Your task to perform on an android device: read, delete, or share a saved page in the chrome app Image 0: 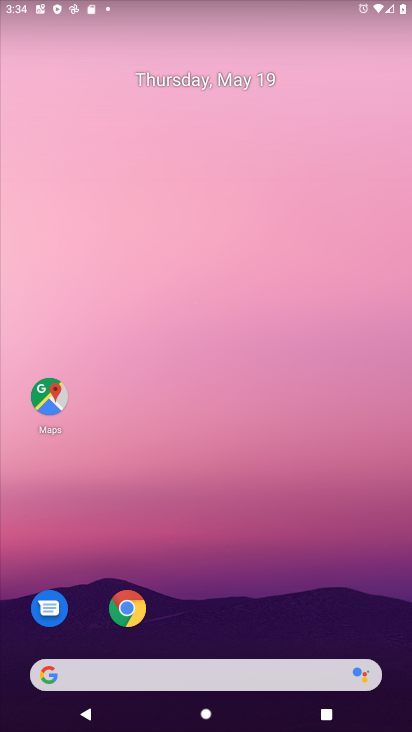
Step 0: click (150, 623)
Your task to perform on an android device: read, delete, or share a saved page in the chrome app Image 1: 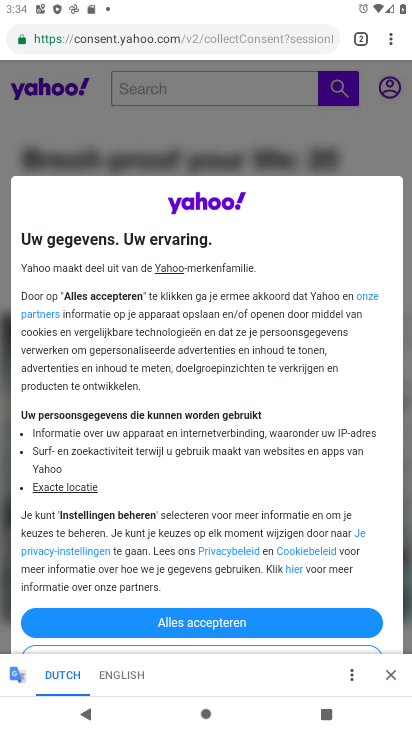
Step 1: click (387, 45)
Your task to perform on an android device: read, delete, or share a saved page in the chrome app Image 2: 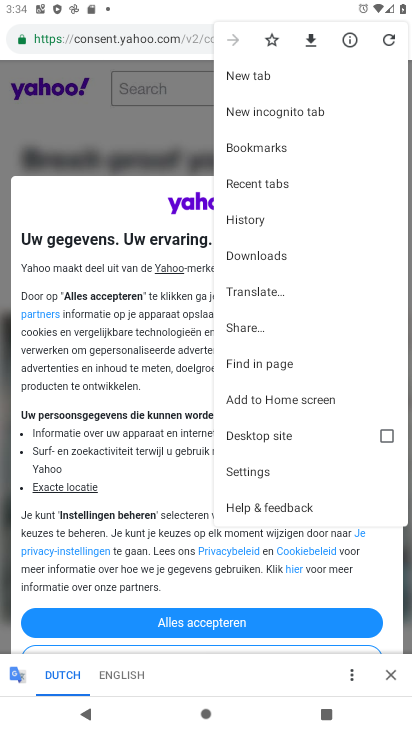
Step 2: click (313, 181)
Your task to perform on an android device: read, delete, or share a saved page in the chrome app Image 3: 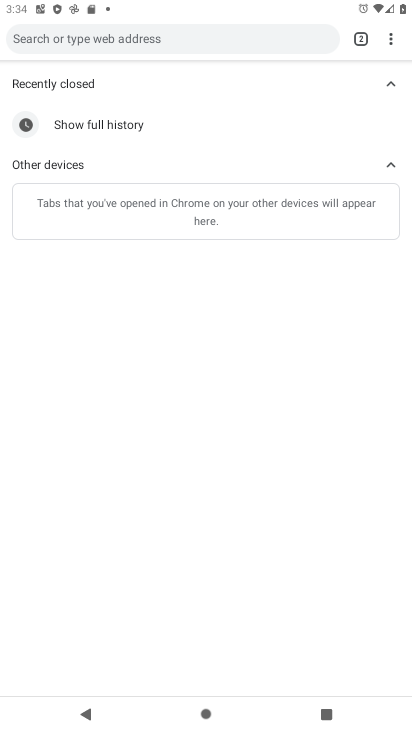
Step 3: task complete